Your task to perform on an android device: star an email in the gmail app Image 0: 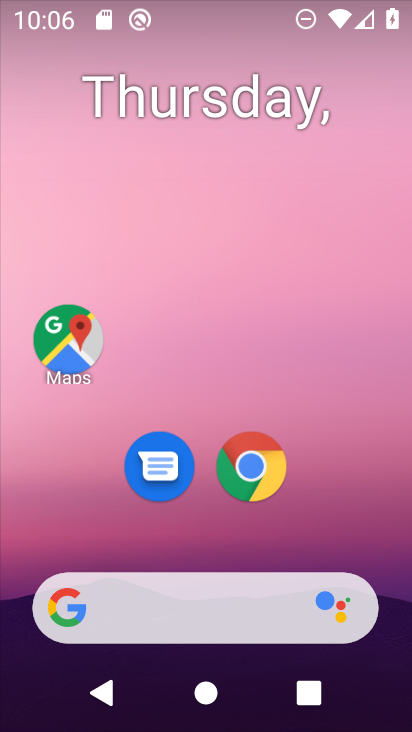
Step 0: drag from (328, 610) to (369, 78)
Your task to perform on an android device: star an email in the gmail app Image 1: 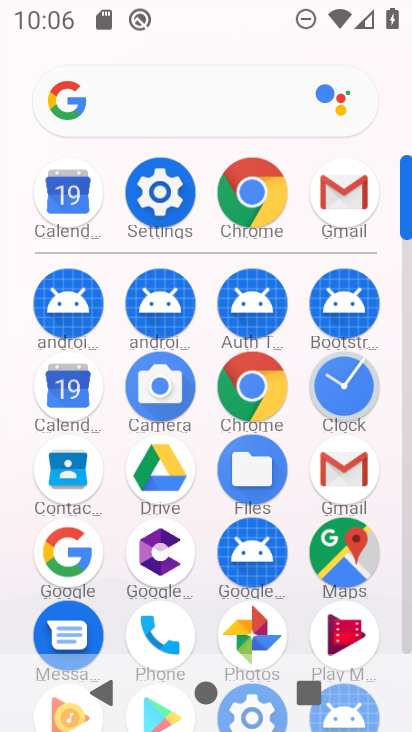
Step 1: click (356, 474)
Your task to perform on an android device: star an email in the gmail app Image 2: 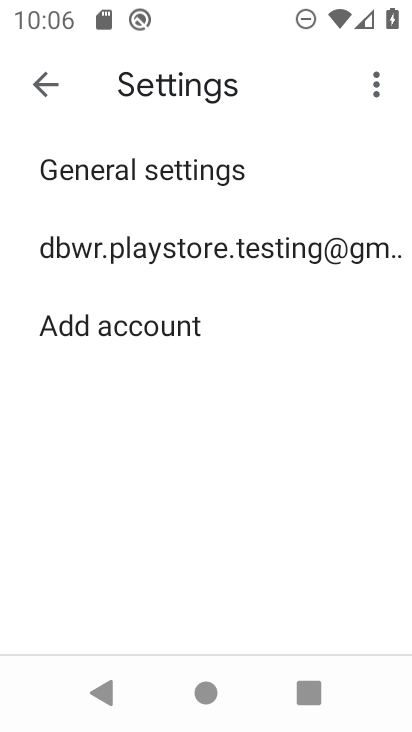
Step 2: task complete